Your task to perform on an android device: turn on the 12-hour format for clock Image 0: 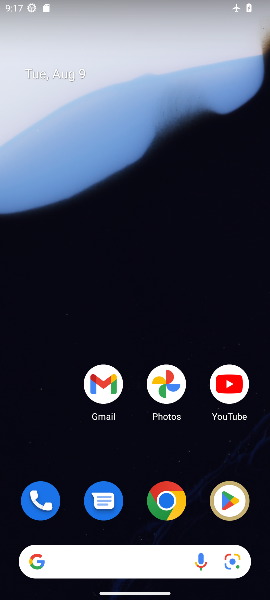
Step 0: drag from (136, 521) to (131, 116)
Your task to perform on an android device: turn on the 12-hour format for clock Image 1: 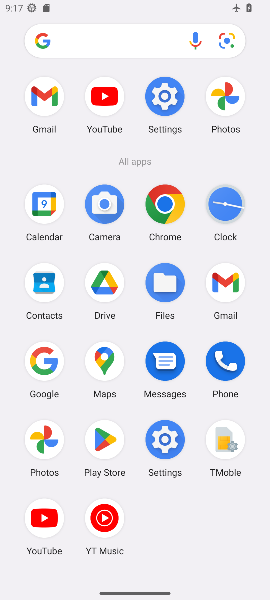
Step 1: click (226, 206)
Your task to perform on an android device: turn on the 12-hour format for clock Image 2: 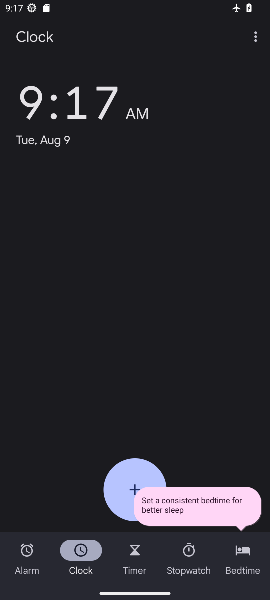
Step 2: click (254, 38)
Your task to perform on an android device: turn on the 12-hour format for clock Image 3: 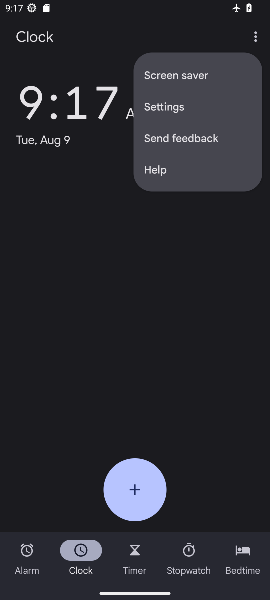
Step 3: click (165, 107)
Your task to perform on an android device: turn on the 12-hour format for clock Image 4: 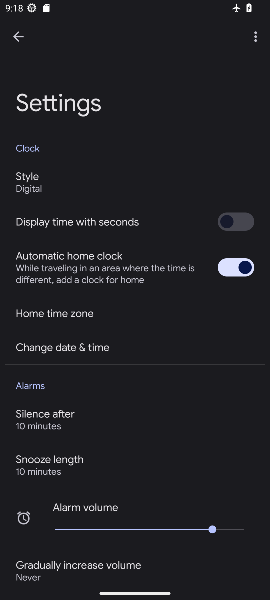
Step 4: click (75, 347)
Your task to perform on an android device: turn on the 12-hour format for clock Image 5: 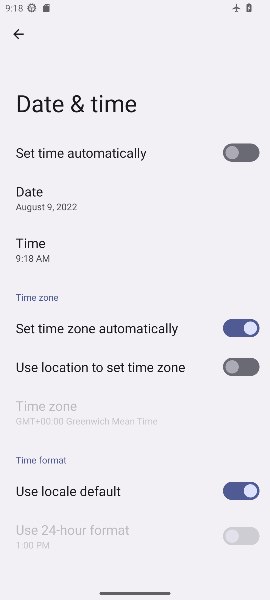
Step 5: click (230, 490)
Your task to perform on an android device: turn on the 12-hour format for clock Image 6: 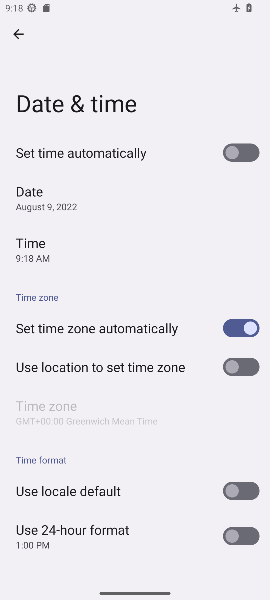
Step 6: click (248, 495)
Your task to perform on an android device: turn on the 12-hour format for clock Image 7: 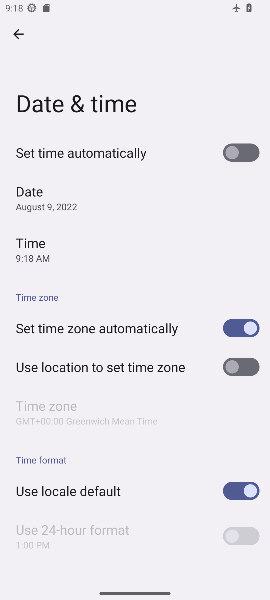
Step 7: task complete